Your task to perform on an android device: install app "Speedtest by Ookla" Image 0: 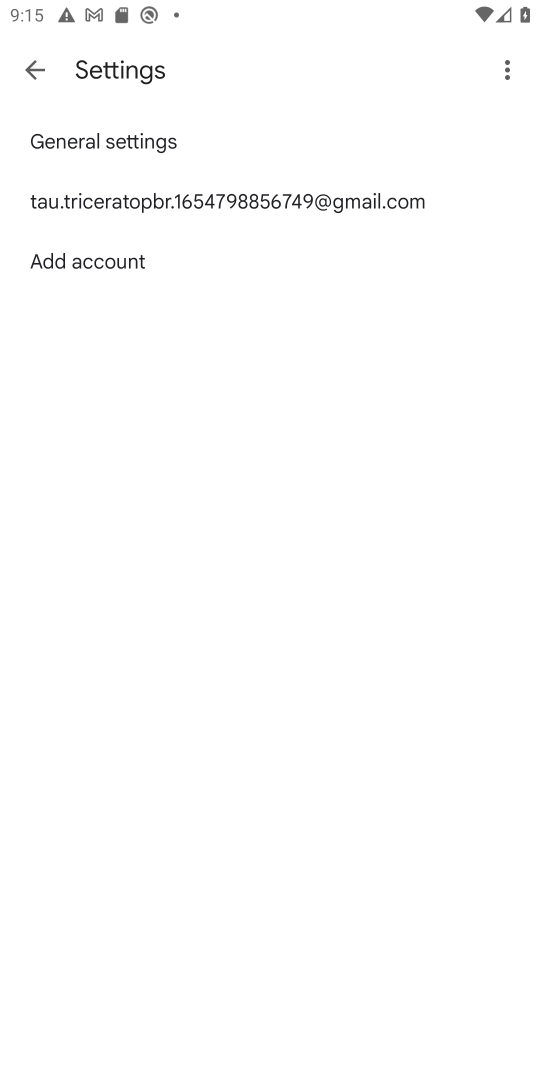
Step 0: press back button
Your task to perform on an android device: install app "Speedtest by Ookla" Image 1: 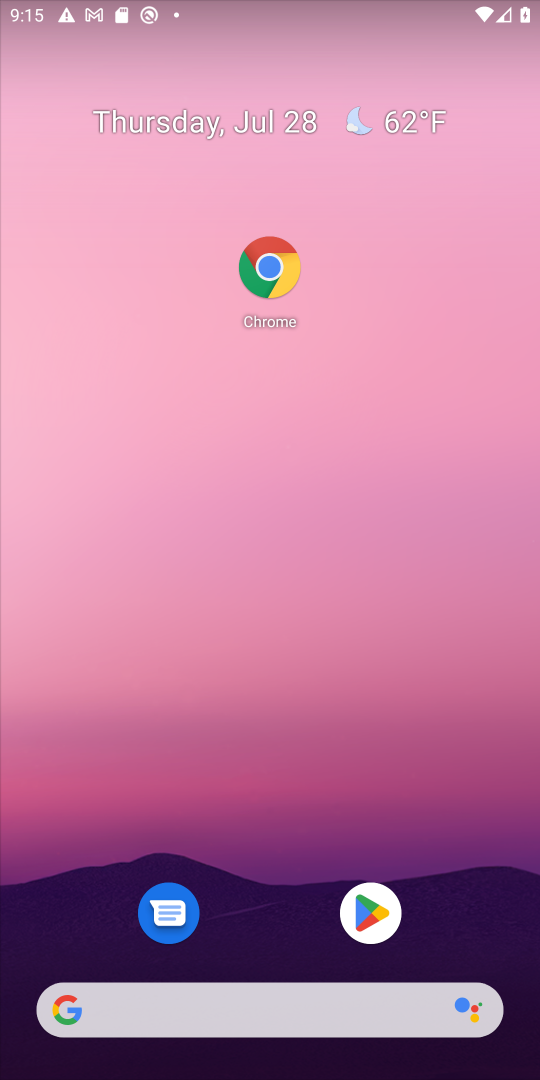
Step 1: click (396, 920)
Your task to perform on an android device: install app "Speedtest by Ookla" Image 2: 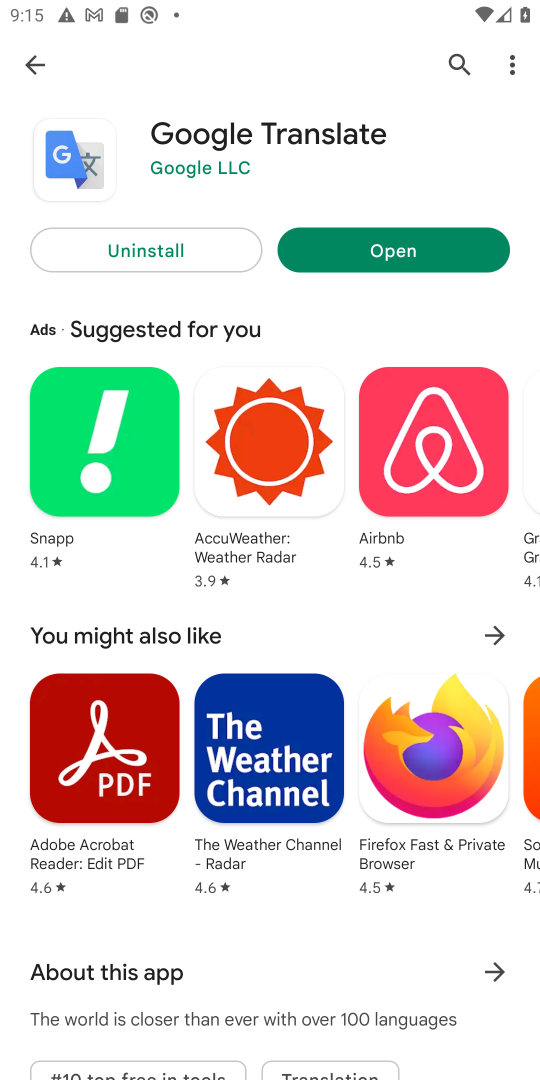
Step 2: click (452, 71)
Your task to perform on an android device: install app "Speedtest by Ookla" Image 3: 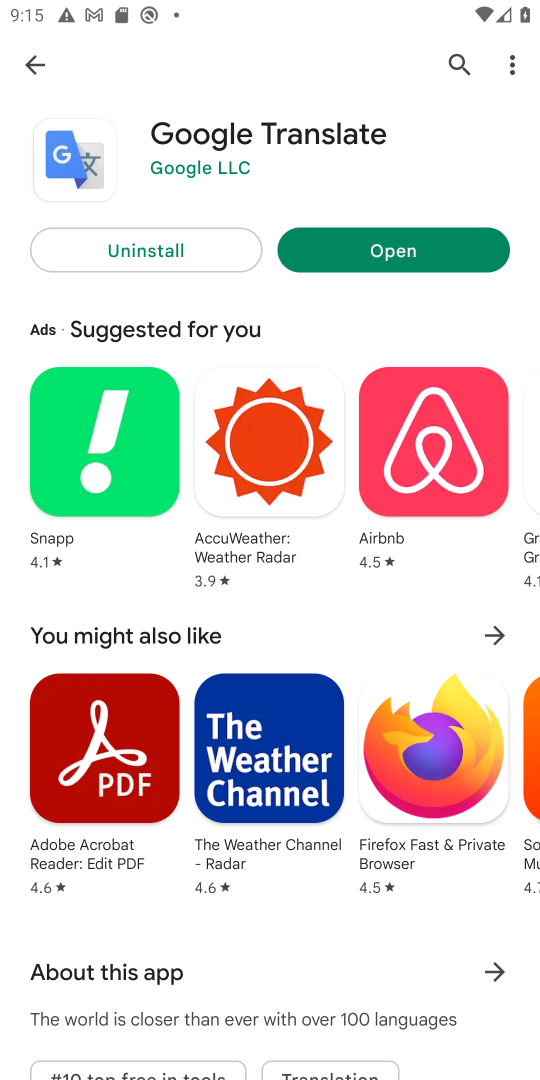
Step 3: click (463, 53)
Your task to perform on an android device: install app "Speedtest by Ookla" Image 4: 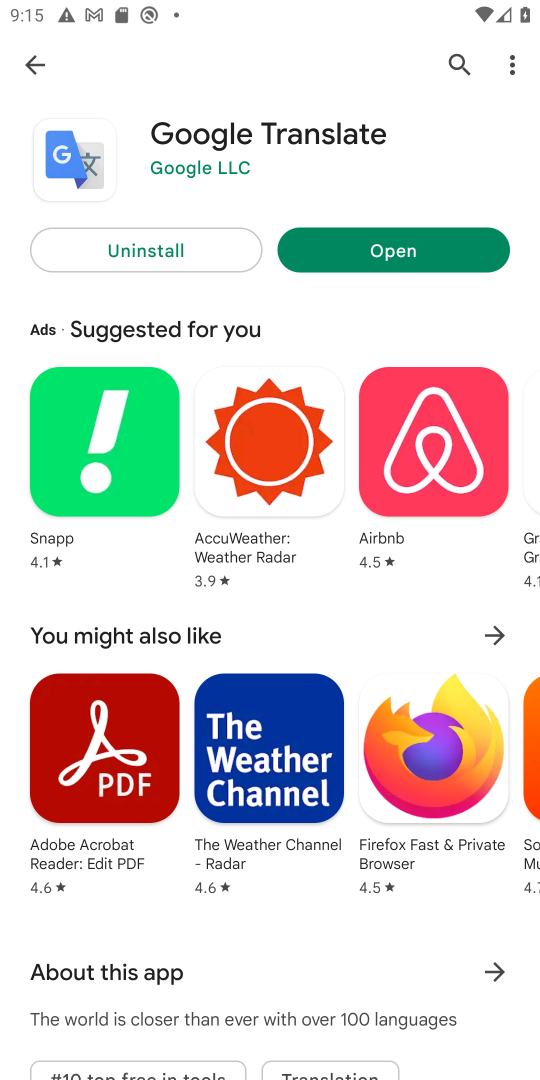
Step 4: click (449, 70)
Your task to perform on an android device: install app "Speedtest by Ookla" Image 5: 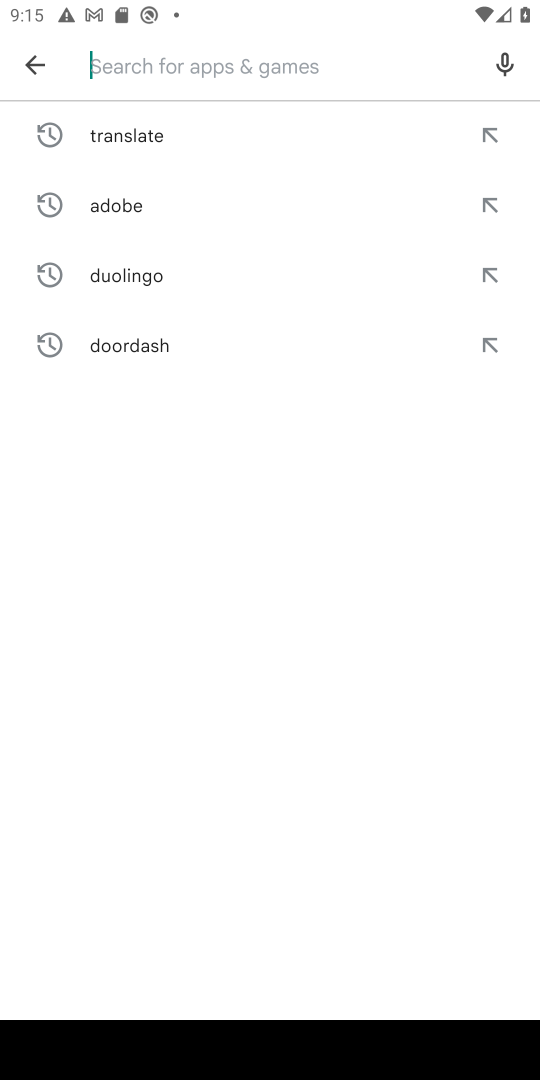
Step 5: drag from (481, 1066) to (490, 931)
Your task to perform on an android device: install app "Speedtest by Ookla" Image 6: 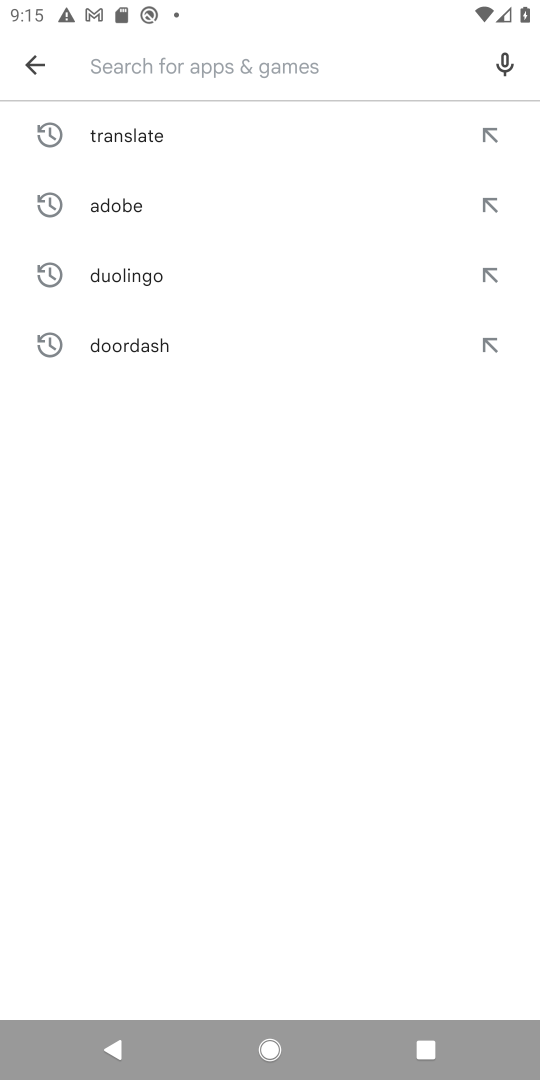
Step 6: drag from (492, 1064) to (518, 947)
Your task to perform on an android device: install app "Speedtest by Ookla" Image 7: 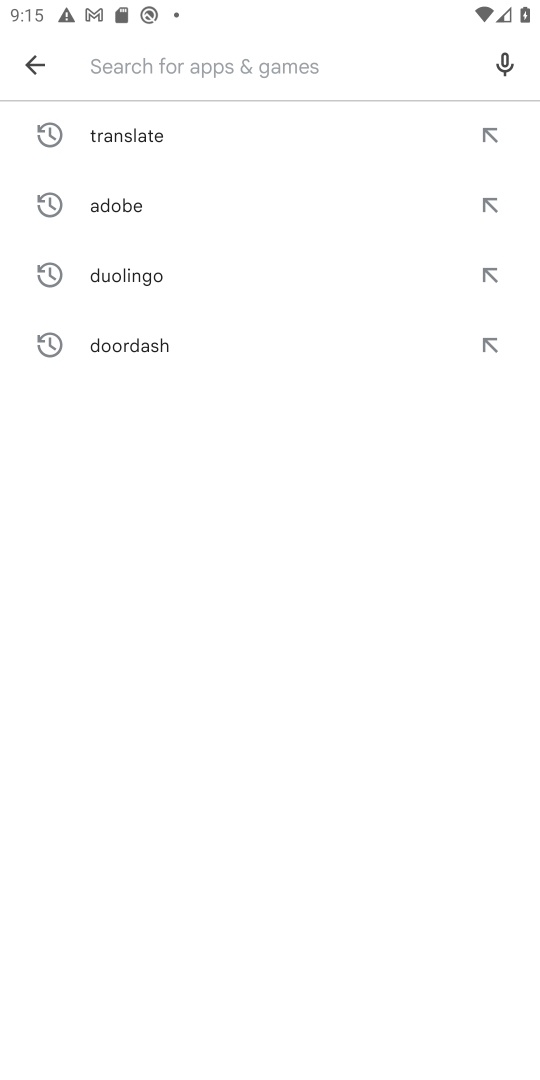
Step 7: click (208, 90)
Your task to perform on an android device: install app "Speedtest by Ookla" Image 8: 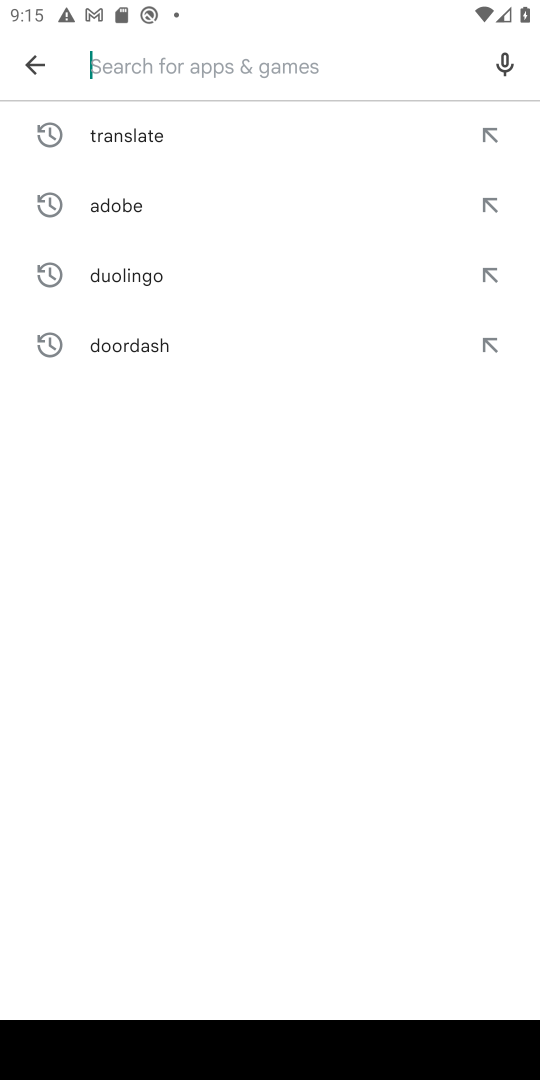
Step 8: click (486, 1069)
Your task to perform on an android device: install app "Speedtest by Ookla" Image 9: 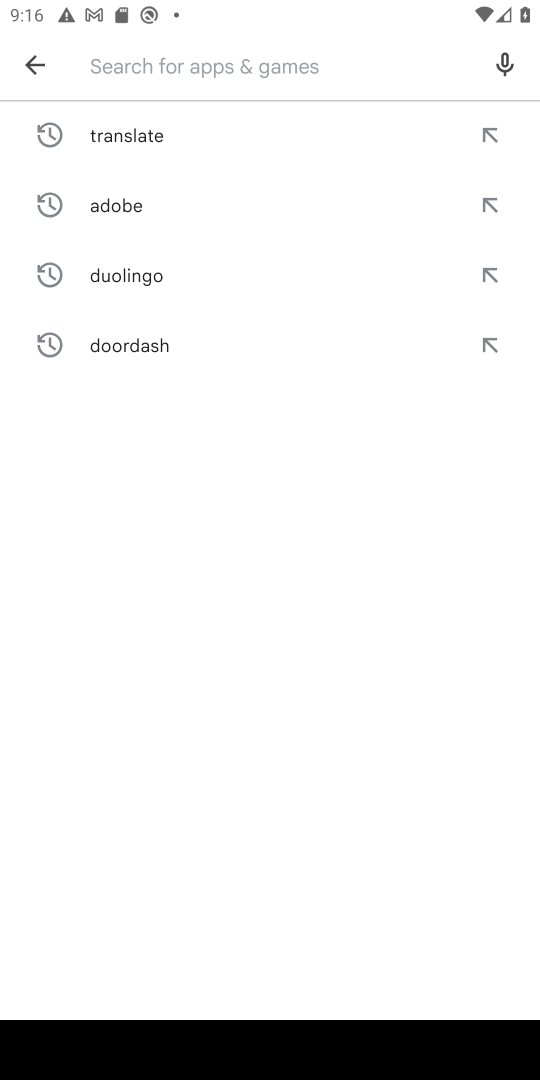
Step 9: type "speed"
Your task to perform on an android device: install app "Speedtest by Ookla" Image 10: 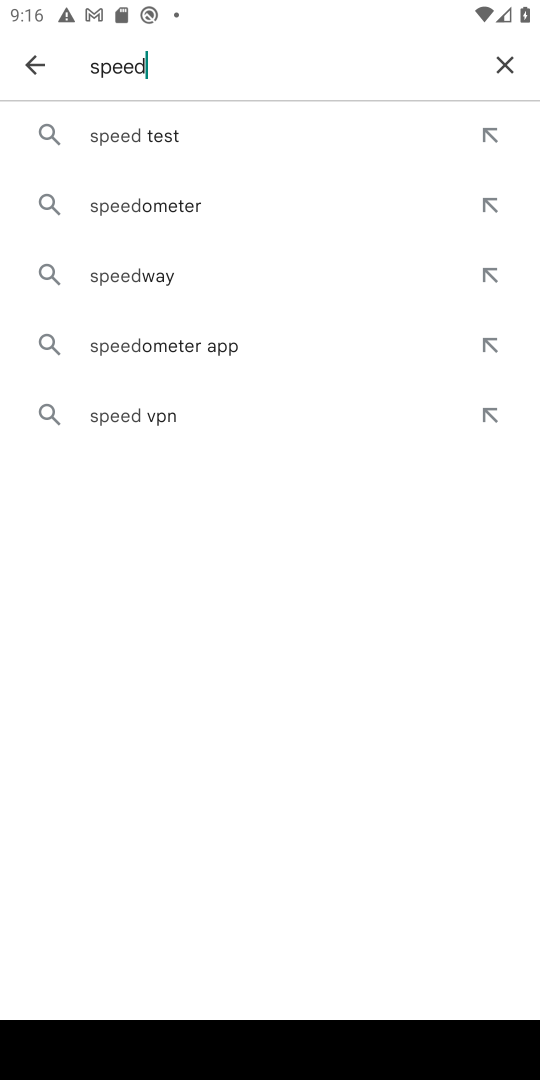
Step 10: click (210, 153)
Your task to perform on an android device: install app "Speedtest by Ookla" Image 11: 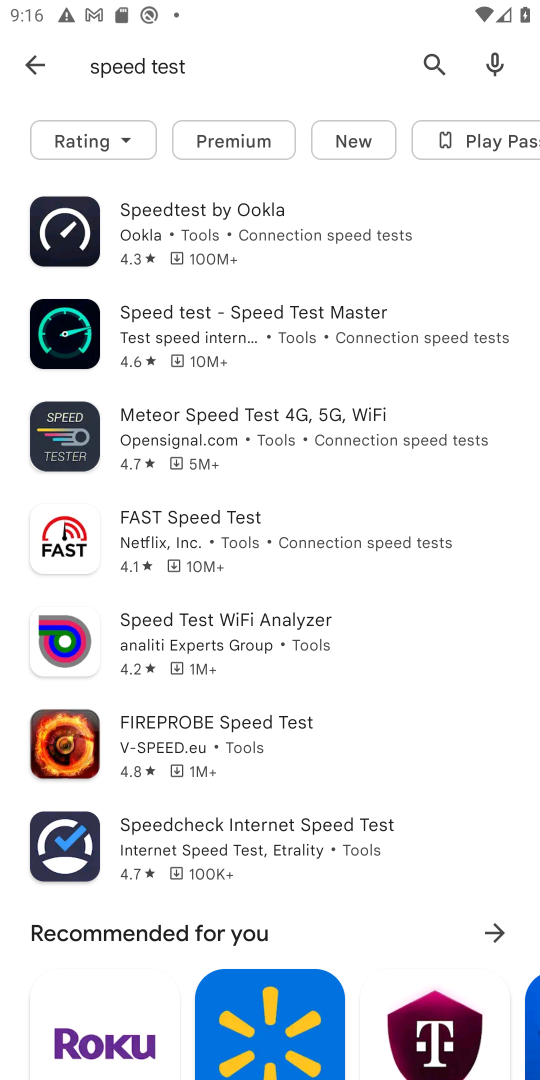
Step 11: click (260, 259)
Your task to perform on an android device: install app "Speedtest by Ookla" Image 12: 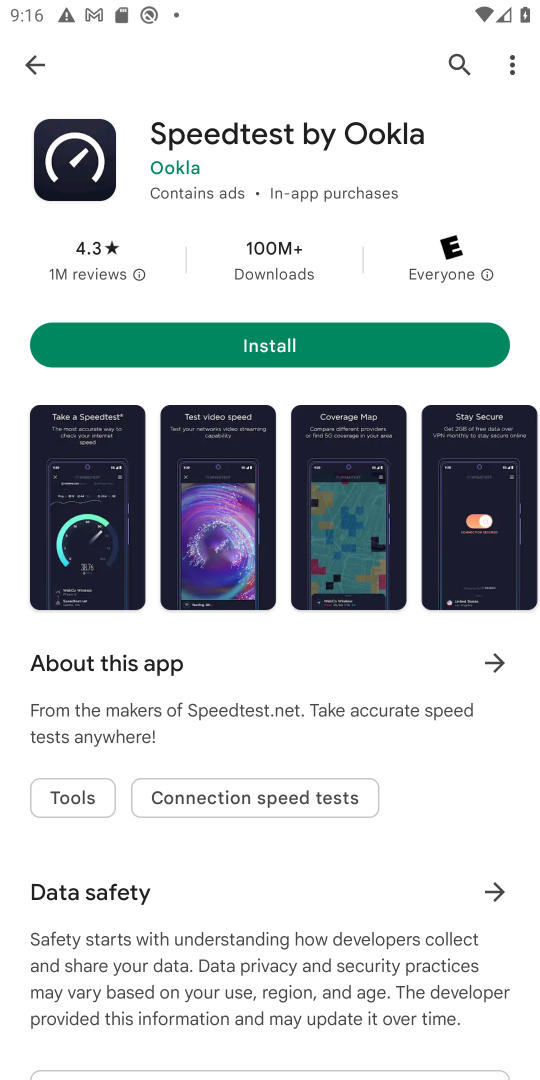
Step 12: click (267, 343)
Your task to perform on an android device: install app "Speedtest by Ookla" Image 13: 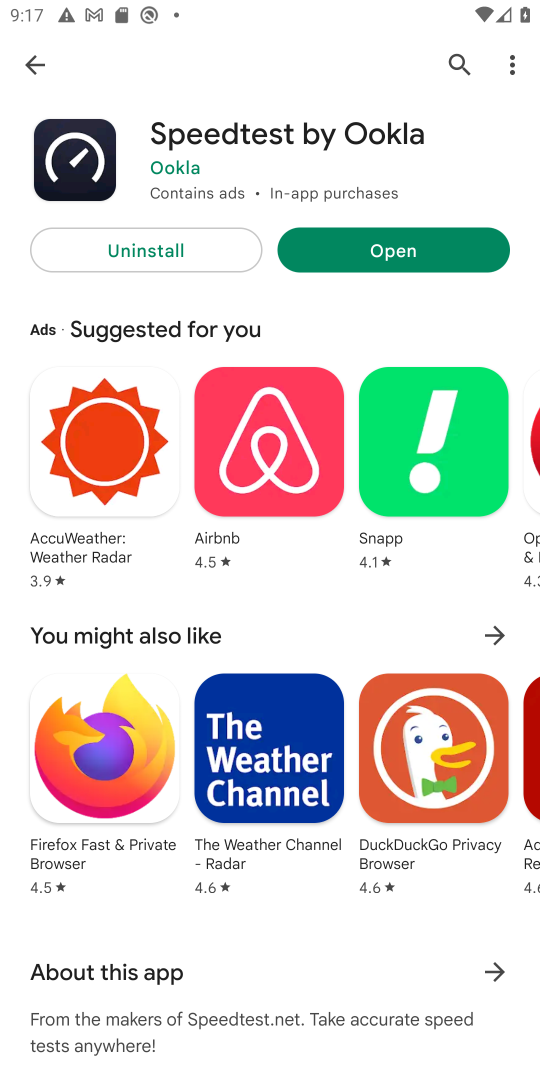
Step 13: task complete